Your task to perform on an android device: toggle data saver in the chrome app Image 0: 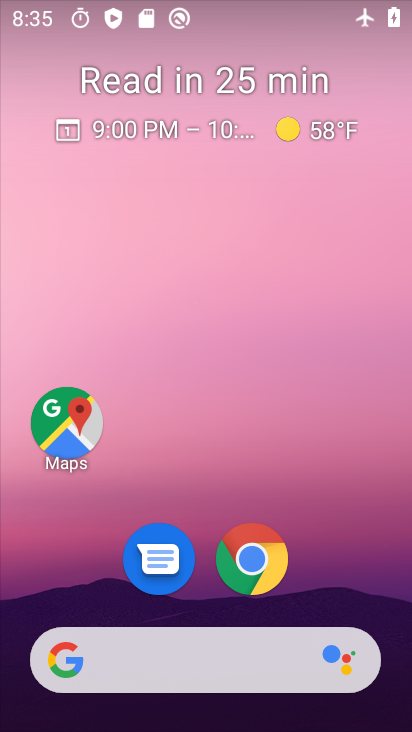
Step 0: click (259, 563)
Your task to perform on an android device: toggle data saver in the chrome app Image 1: 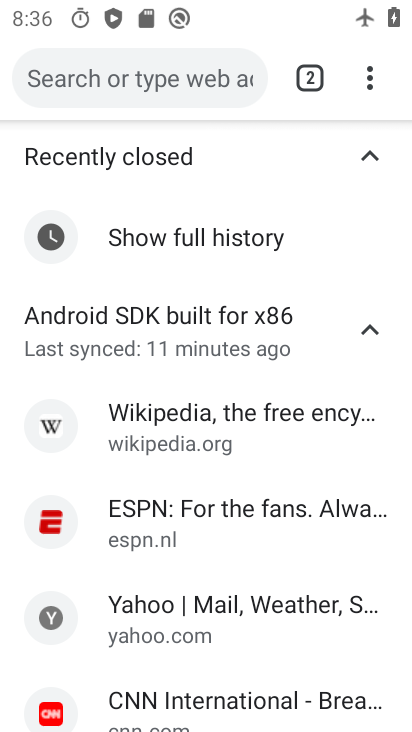
Step 1: click (365, 76)
Your task to perform on an android device: toggle data saver in the chrome app Image 2: 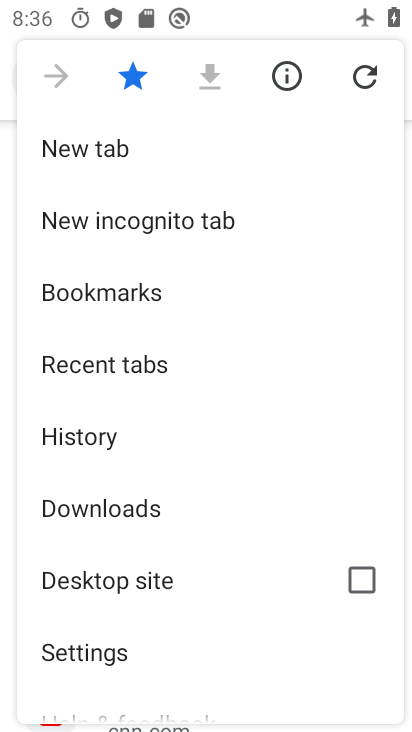
Step 2: drag from (96, 620) to (118, 370)
Your task to perform on an android device: toggle data saver in the chrome app Image 3: 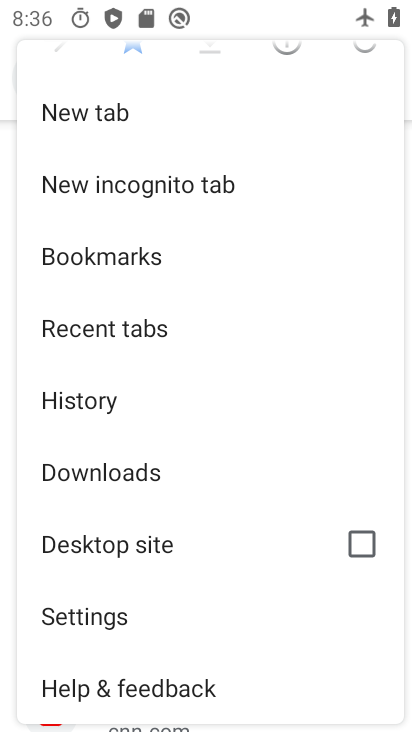
Step 3: click (83, 614)
Your task to perform on an android device: toggle data saver in the chrome app Image 4: 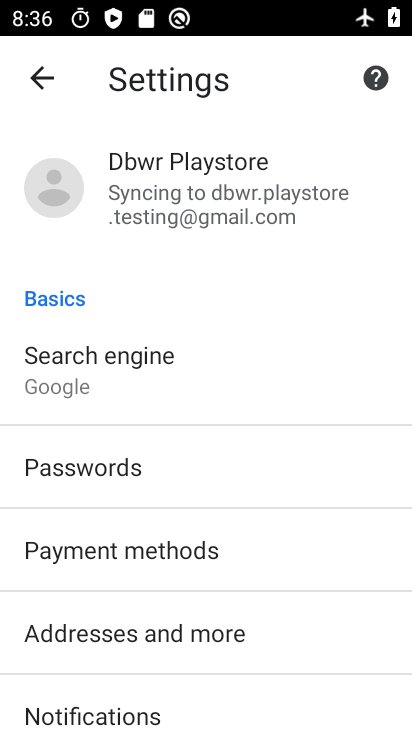
Step 4: drag from (129, 505) to (174, 278)
Your task to perform on an android device: toggle data saver in the chrome app Image 5: 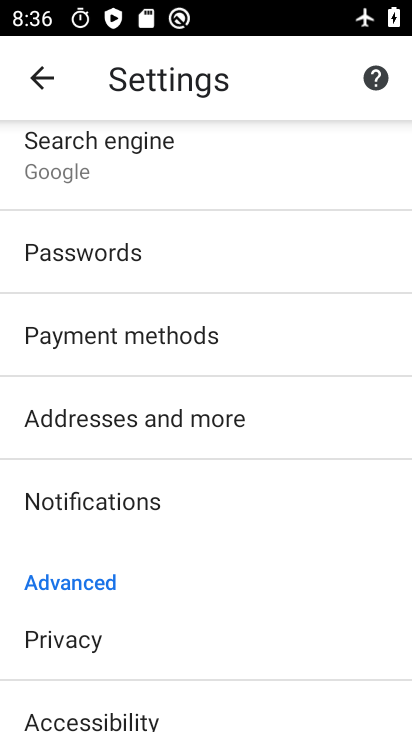
Step 5: drag from (107, 529) to (160, 303)
Your task to perform on an android device: toggle data saver in the chrome app Image 6: 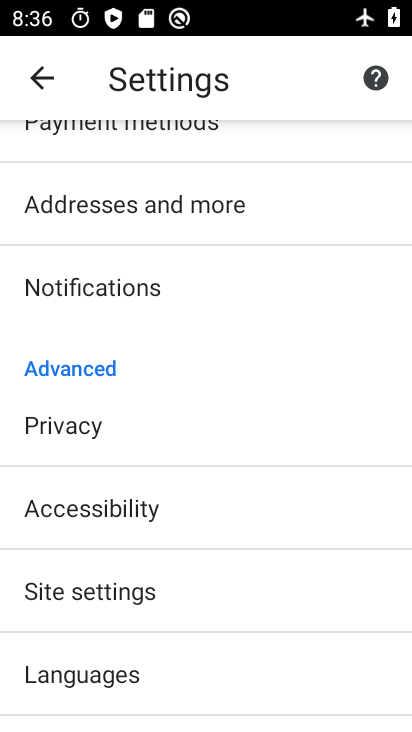
Step 6: drag from (80, 627) to (141, 361)
Your task to perform on an android device: toggle data saver in the chrome app Image 7: 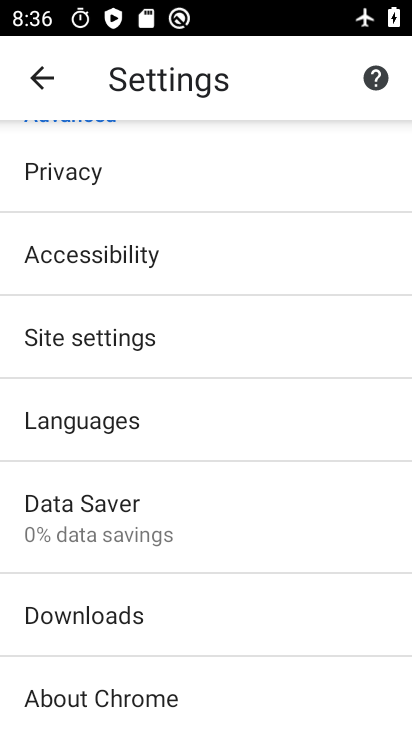
Step 7: click (94, 511)
Your task to perform on an android device: toggle data saver in the chrome app Image 8: 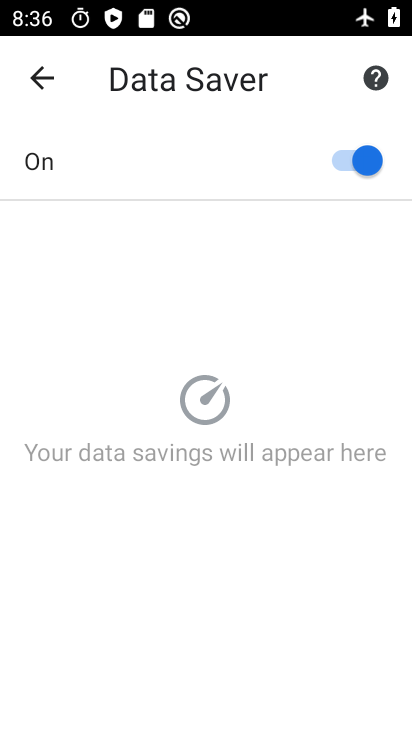
Step 8: click (348, 157)
Your task to perform on an android device: toggle data saver in the chrome app Image 9: 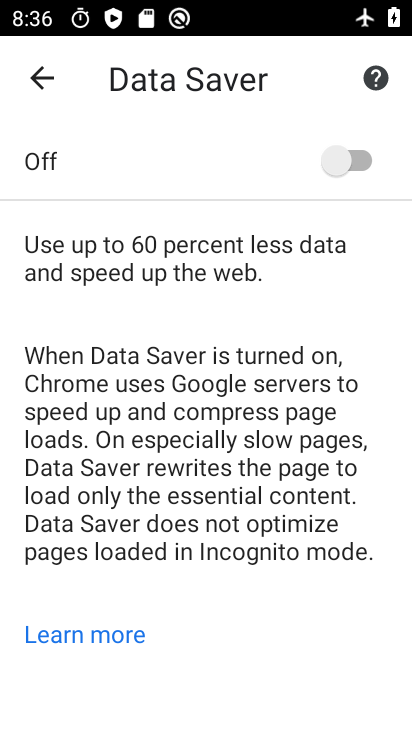
Step 9: task complete